Your task to perform on an android device: Open Amazon Image 0: 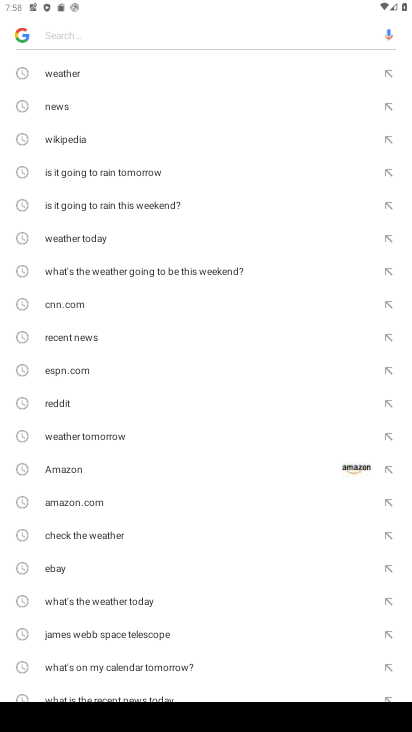
Step 0: click (89, 473)
Your task to perform on an android device: Open Amazon Image 1: 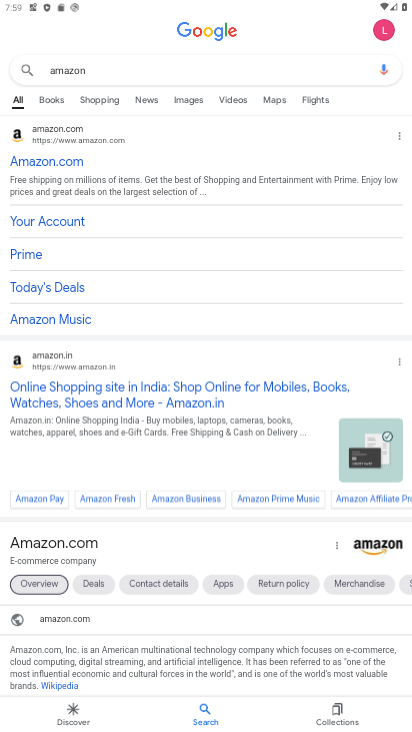
Step 1: click (44, 167)
Your task to perform on an android device: Open Amazon Image 2: 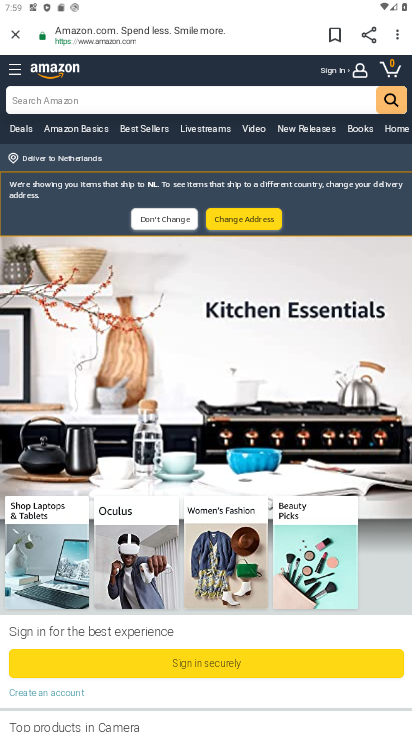
Step 2: task complete